Your task to perform on an android device: toggle notifications settings in the gmail app Image 0: 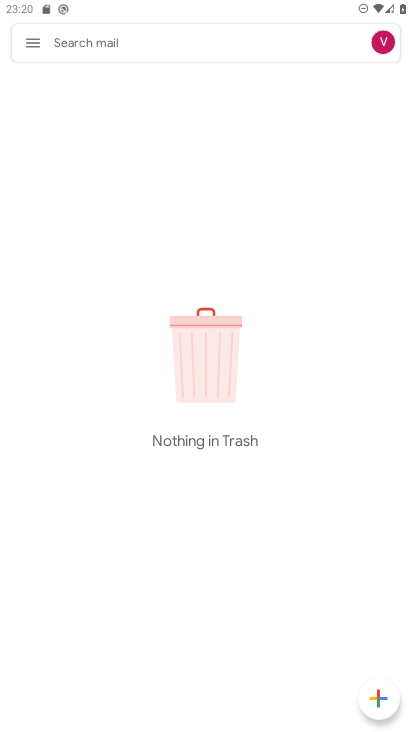
Step 0: press home button
Your task to perform on an android device: toggle notifications settings in the gmail app Image 1: 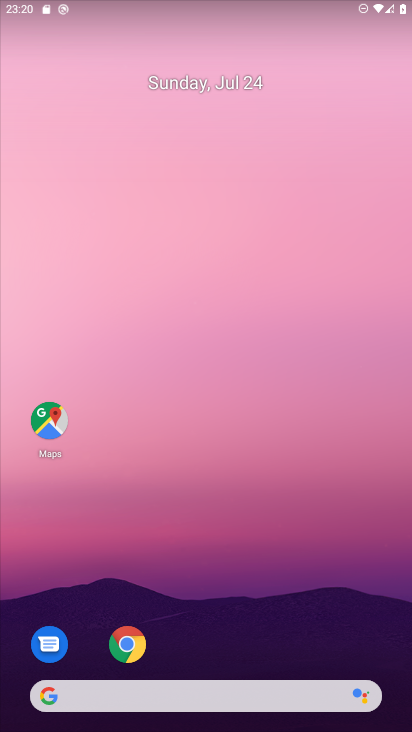
Step 1: drag from (366, 656) to (291, 65)
Your task to perform on an android device: toggle notifications settings in the gmail app Image 2: 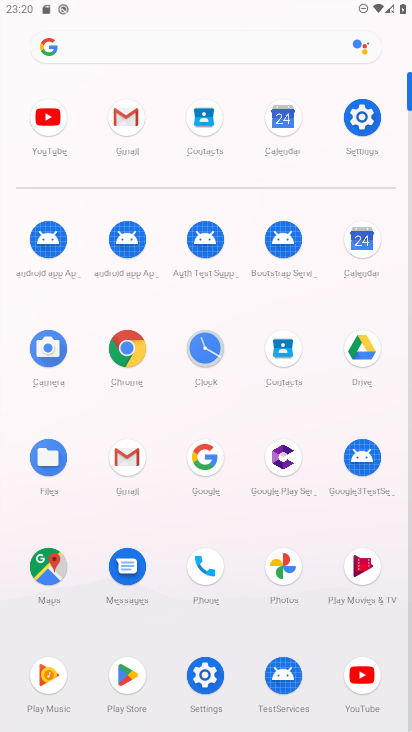
Step 2: click (126, 460)
Your task to perform on an android device: toggle notifications settings in the gmail app Image 3: 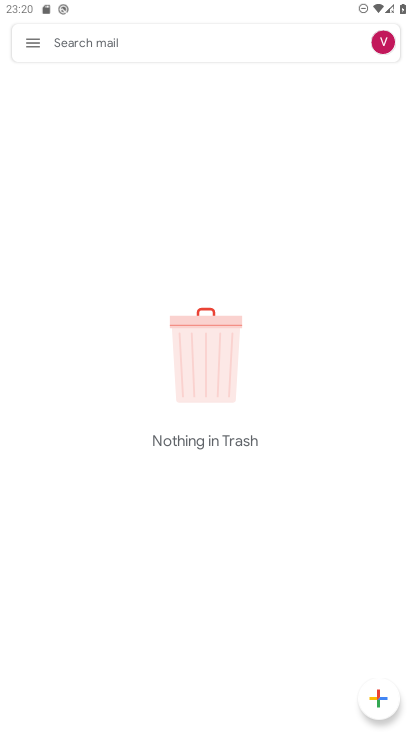
Step 3: click (35, 47)
Your task to perform on an android device: toggle notifications settings in the gmail app Image 4: 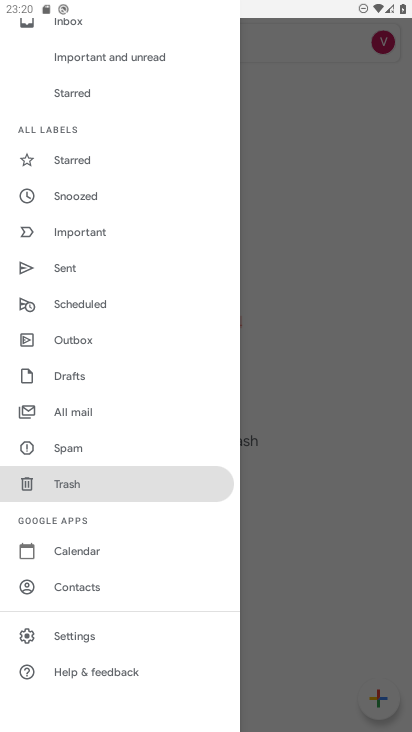
Step 4: click (78, 632)
Your task to perform on an android device: toggle notifications settings in the gmail app Image 5: 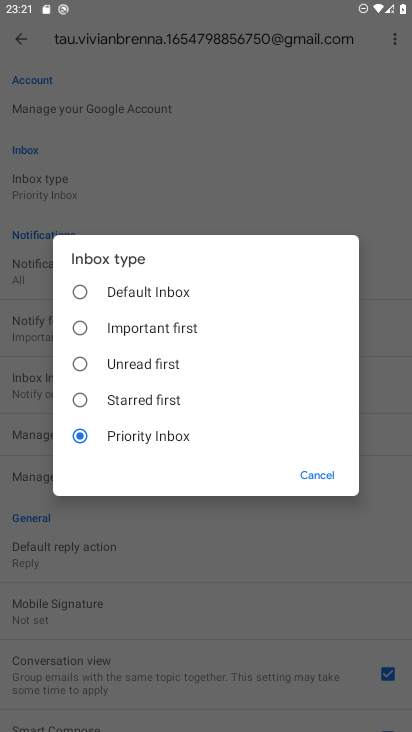
Step 5: click (313, 472)
Your task to perform on an android device: toggle notifications settings in the gmail app Image 6: 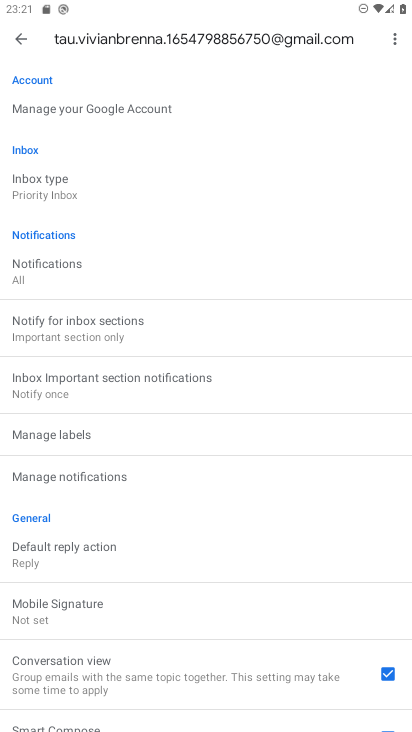
Step 6: click (62, 478)
Your task to perform on an android device: toggle notifications settings in the gmail app Image 7: 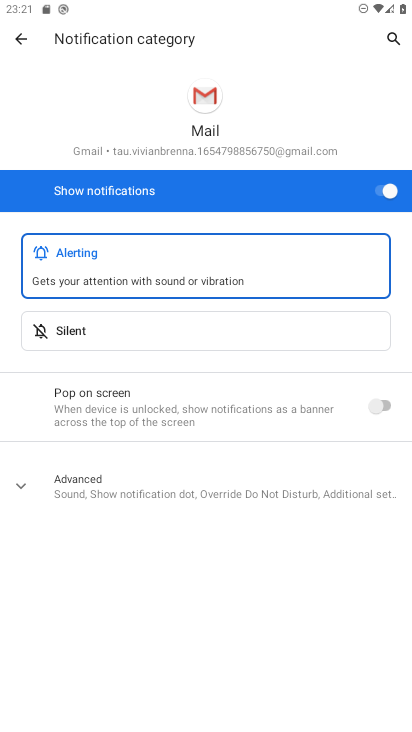
Step 7: click (377, 192)
Your task to perform on an android device: toggle notifications settings in the gmail app Image 8: 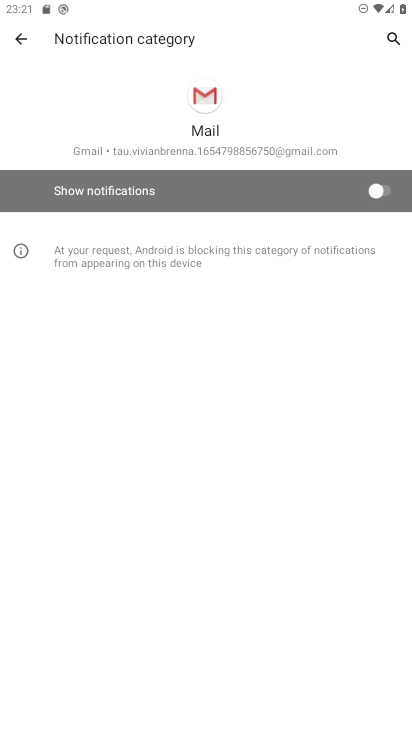
Step 8: task complete